Your task to perform on an android device: change the clock display to digital Image 0: 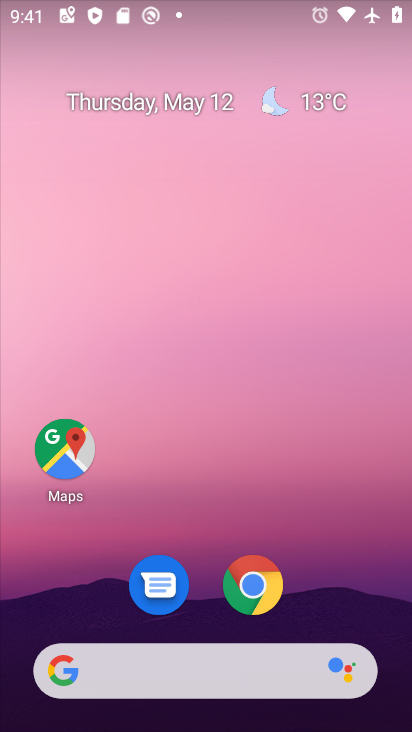
Step 0: drag from (354, 503) to (290, 85)
Your task to perform on an android device: change the clock display to digital Image 1: 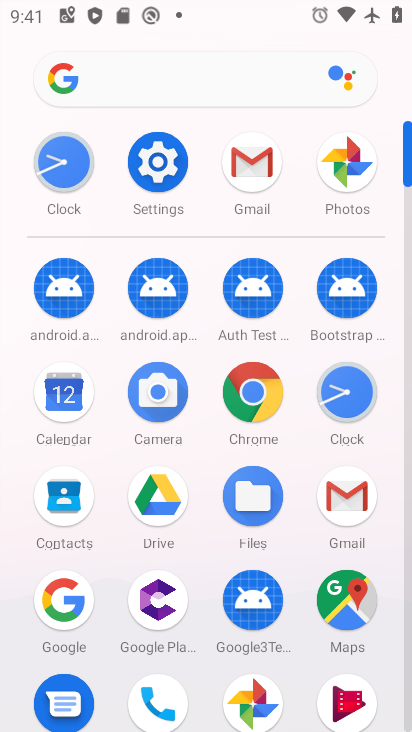
Step 1: click (335, 384)
Your task to perform on an android device: change the clock display to digital Image 2: 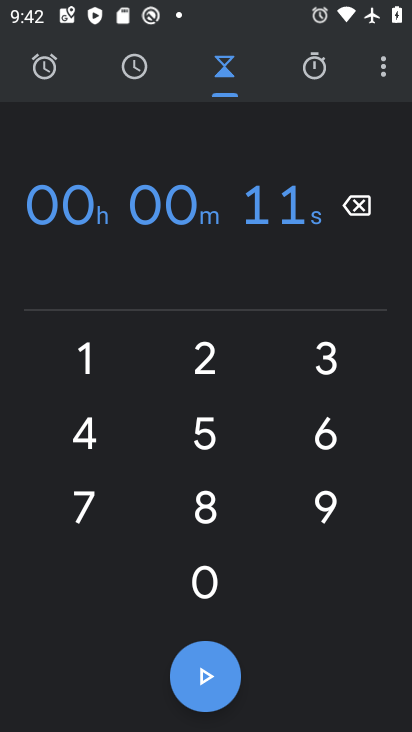
Step 2: click (129, 63)
Your task to perform on an android device: change the clock display to digital Image 3: 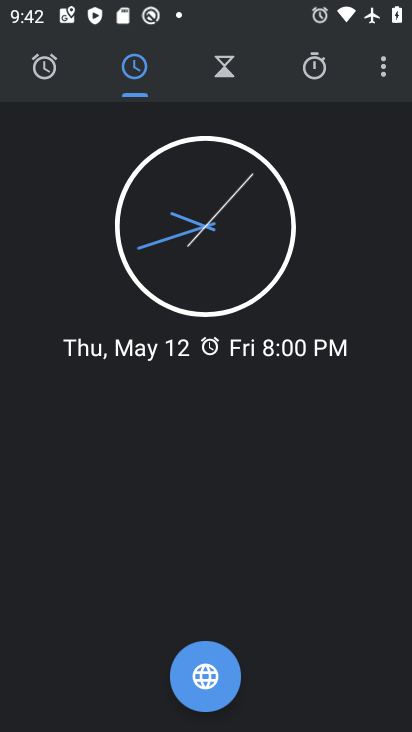
Step 3: click (377, 58)
Your task to perform on an android device: change the clock display to digital Image 4: 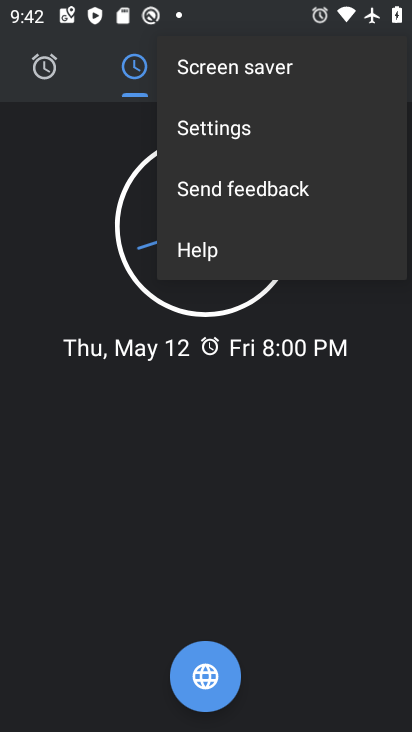
Step 4: click (325, 133)
Your task to perform on an android device: change the clock display to digital Image 5: 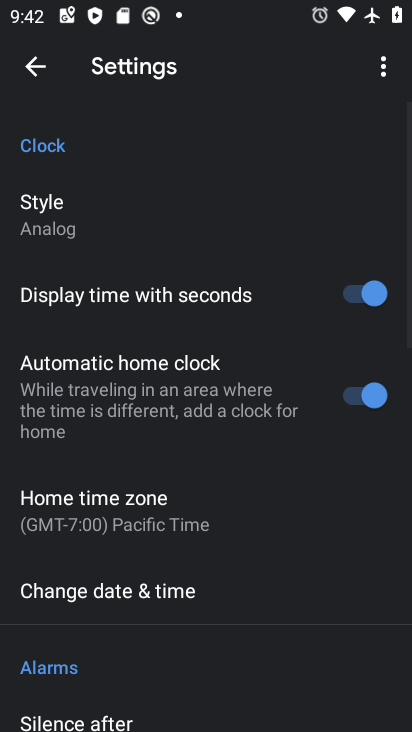
Step 5: click (97, 224)
Your task to perform on an android device: change the clock display to digital Image 6: 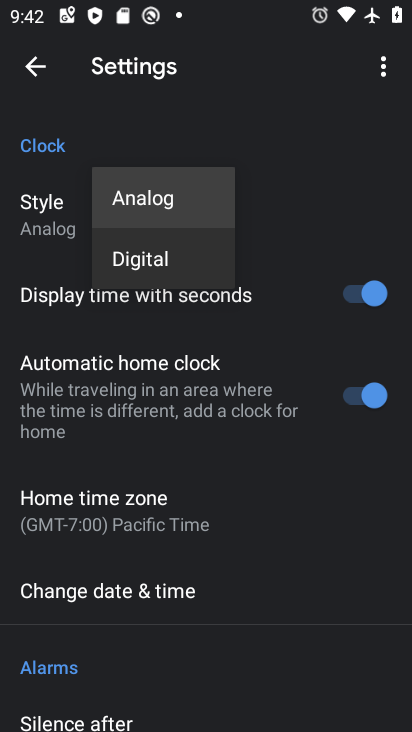
Step 6: click (125, 256)
Your task to perform on an android device: change the clock display to digital Image 7: 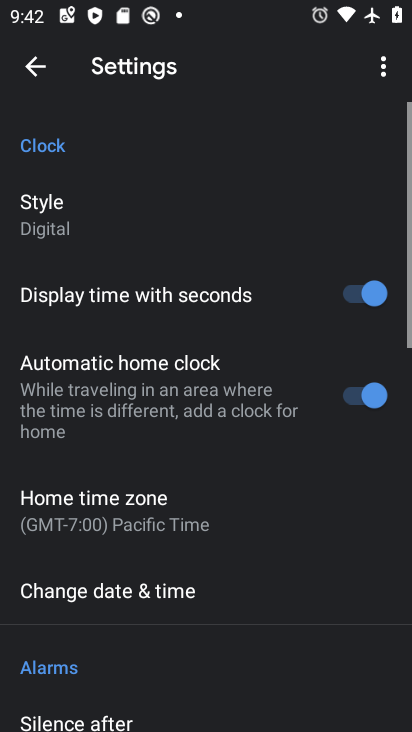
Step 7: click (37, 68)
Your task to perform on an android device: change the clock display to digital Image 8: 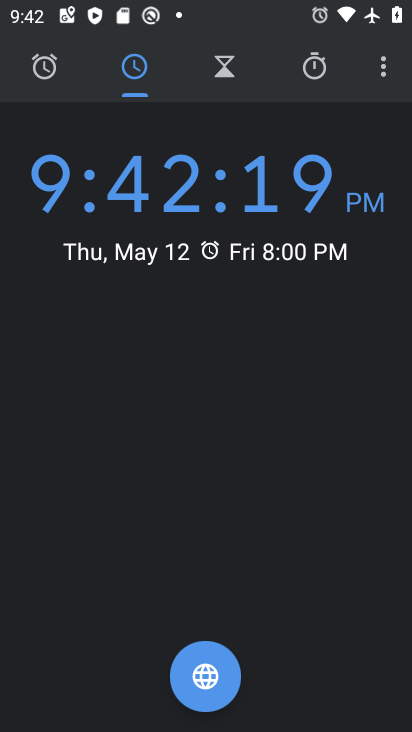
Step 8: task complete